Your task to perform on an android device: open chrome and create a bookmark for the current page Image 0: 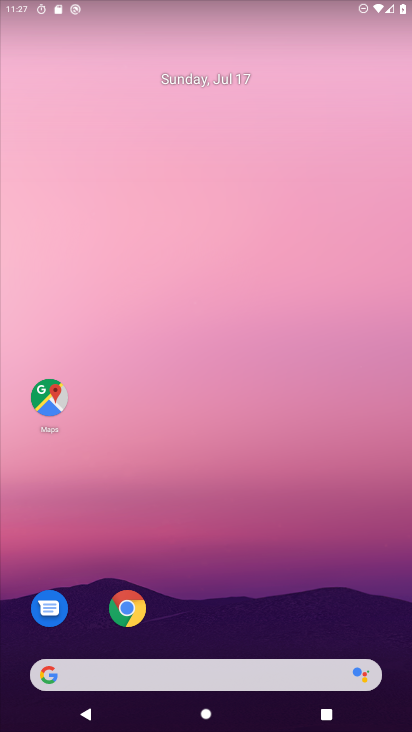
Step 0: click (124, 604)
Your task to perform on an android device: open chrome and create a bookmark for the current page Image 1: 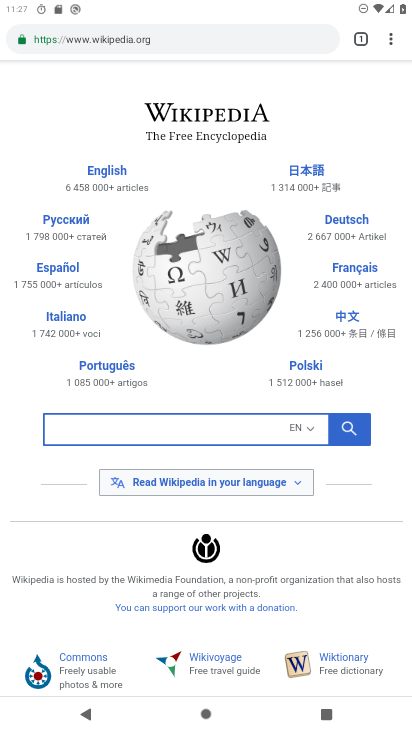
Step 1: click (388, 39)
Your task to perform on an android device: open chrome and create a bookmark for the current page Image 2: 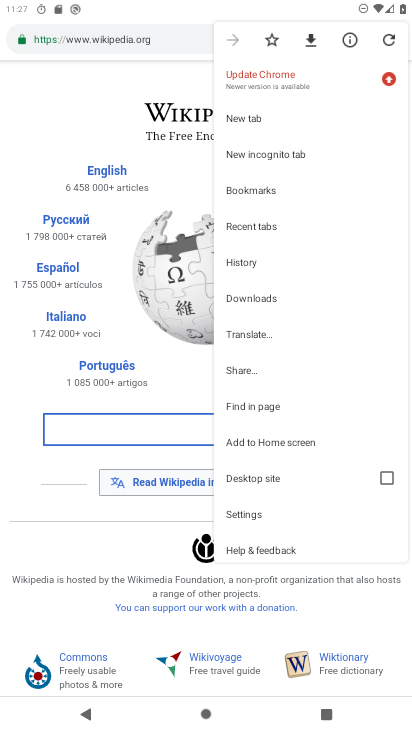
Step 2: click (267, 40)
Your task to perform on an android device: open chrome and create a bookmark for the current page Image 3: 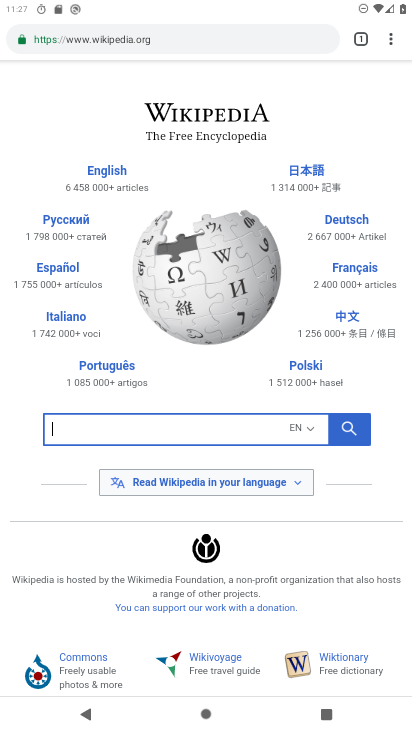
Step 3: task complete